Your task to perform on an android device: Open settings Image 0: 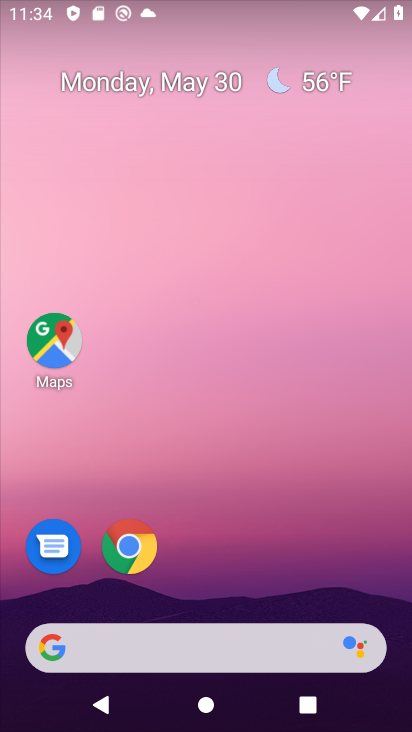
Step 0: drag from (298, 573) to (223, 29)
Your task to perform on an android device: Open settings Image 1: 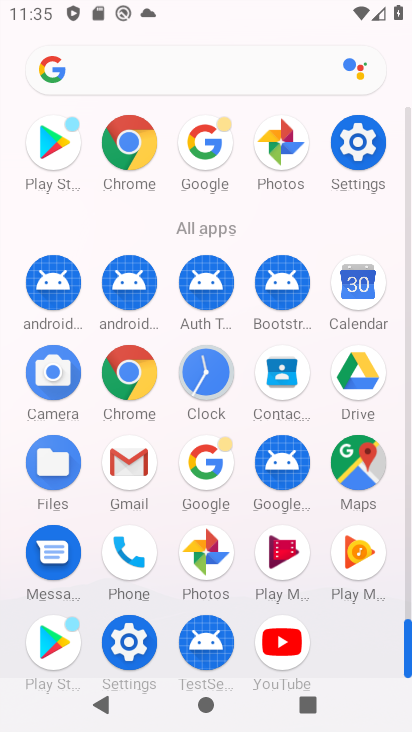
Step 1: click (358, 140)
Your task to perform on an android device: Open settings Image 2: 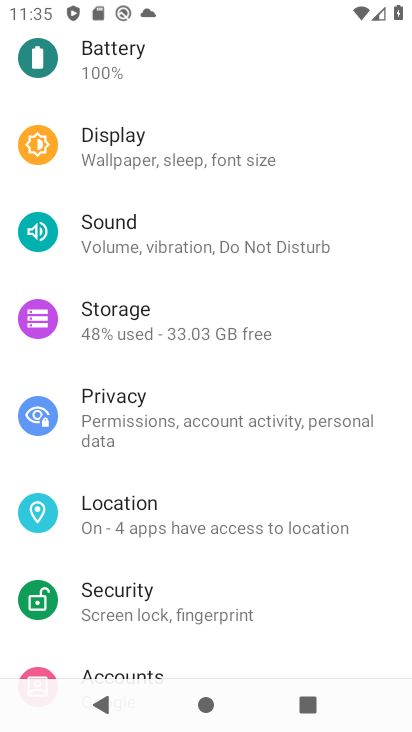
Step 2: task complete